Your task to perform on an android device: Open CNN.com Image 0: 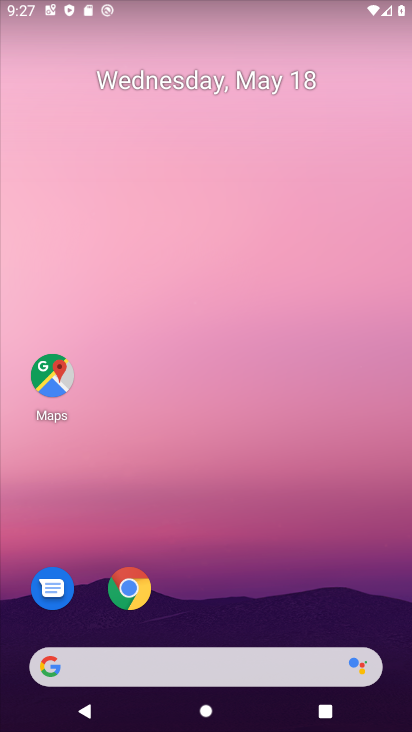
Step 0: drag from (252, 662) to (259, 172)
Your task to perform on an android device: Open CNN.com Image 1: 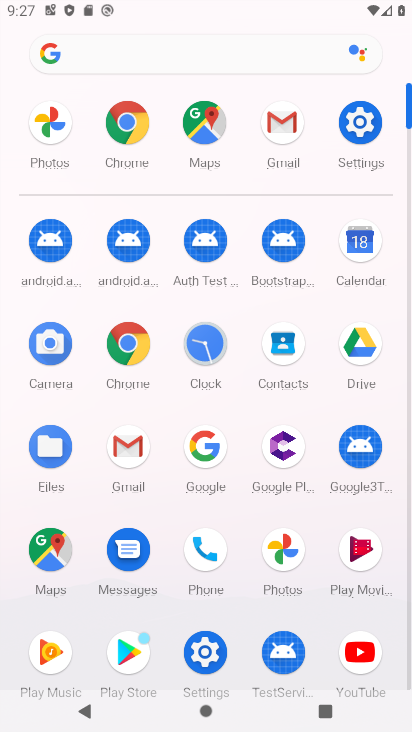
Step 1: click (145, 116)
Your task to perform on an android device: Open CNN.com Image 2: 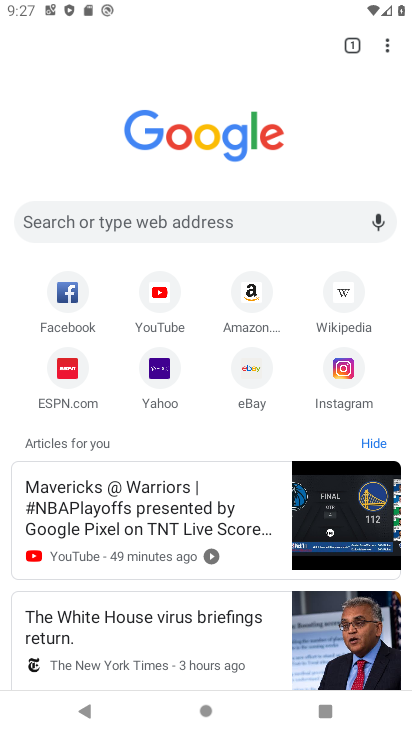
Step 2: click (111, 221)
Your task to perform on an android device: Open CNN.com Image 3: 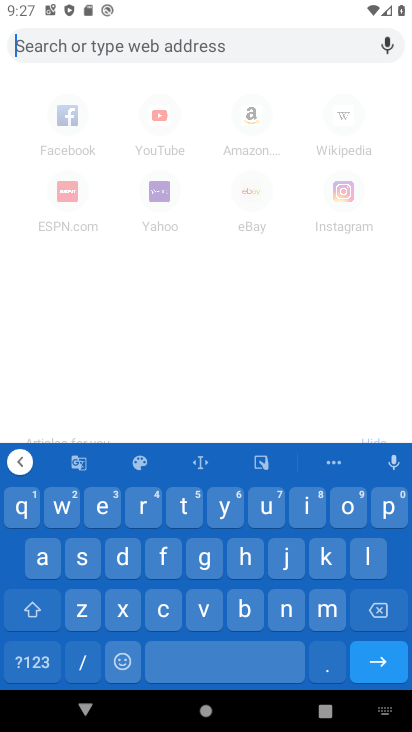
Step 3: click (160, 620)
Your task to perform on an android device: Open CNN.com Image 4: 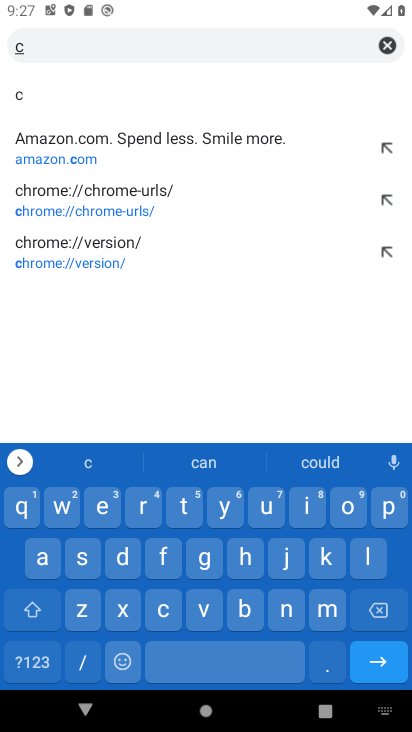
Step 4: click (284, 617)
Your task to perform on an android device: Open CNN.com Image 5: 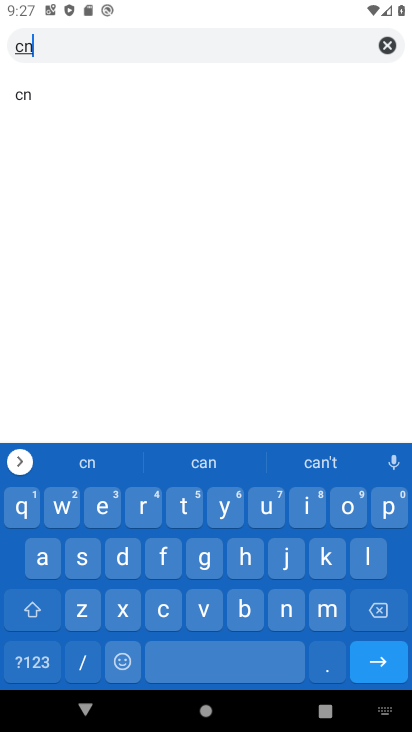
Step 5: click (284, 617)
Your task to perform on an android device: Open CNN.com Image 6: 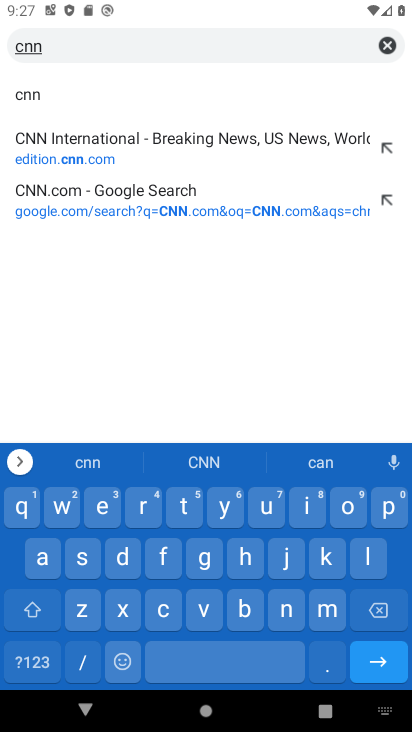
Step 6: click (84, 190)
Your task to perform on an android device: Open CNN.com Image 7: 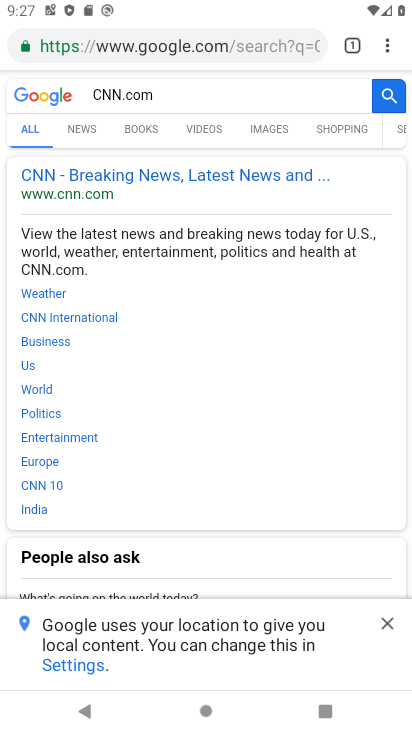
Step 7: click (77, 185)
Your task to perform on an android device: Open CNN.com Image 8: 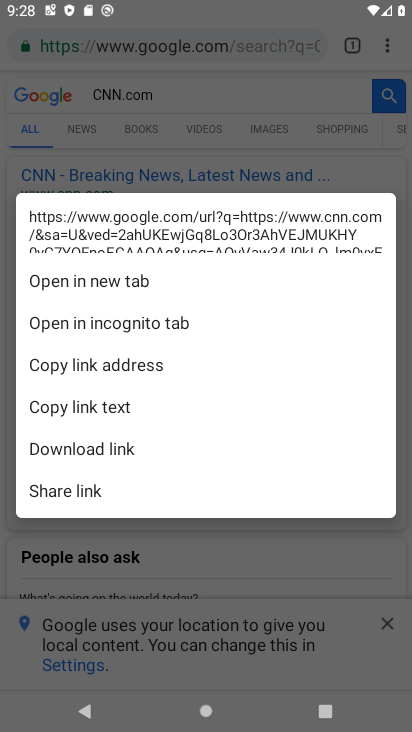
Step 8: click (157, 544)
Your task to perform on an android device: Open CNN.com Image 9: 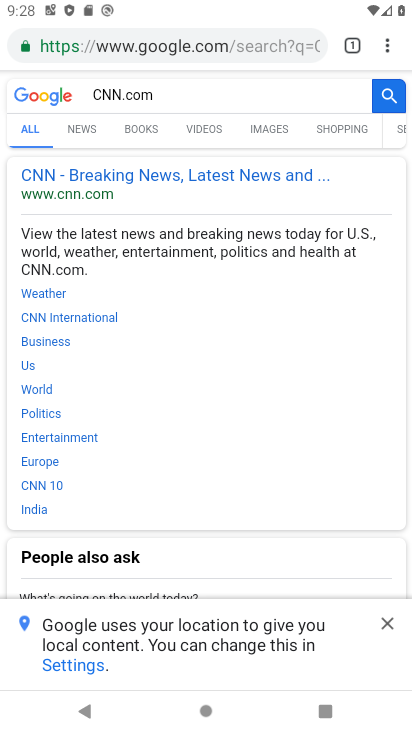
Step 9: click (145, 181)
Your task to perform on an android device: Open CNN.com Image 10: 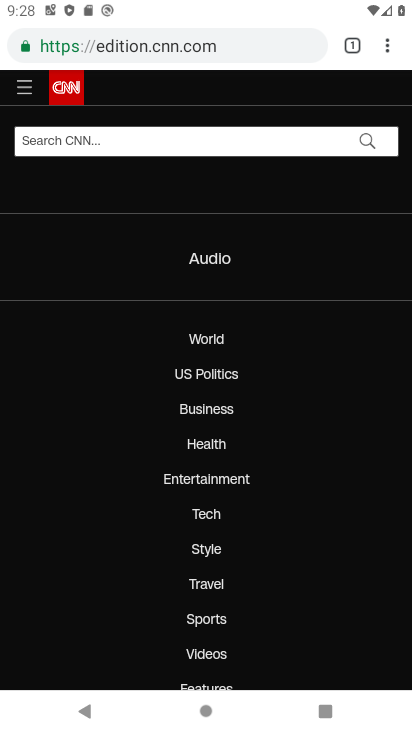
Step 10: task complete